Your task to perform on an android device: see creations saved in the google photos Image 0: 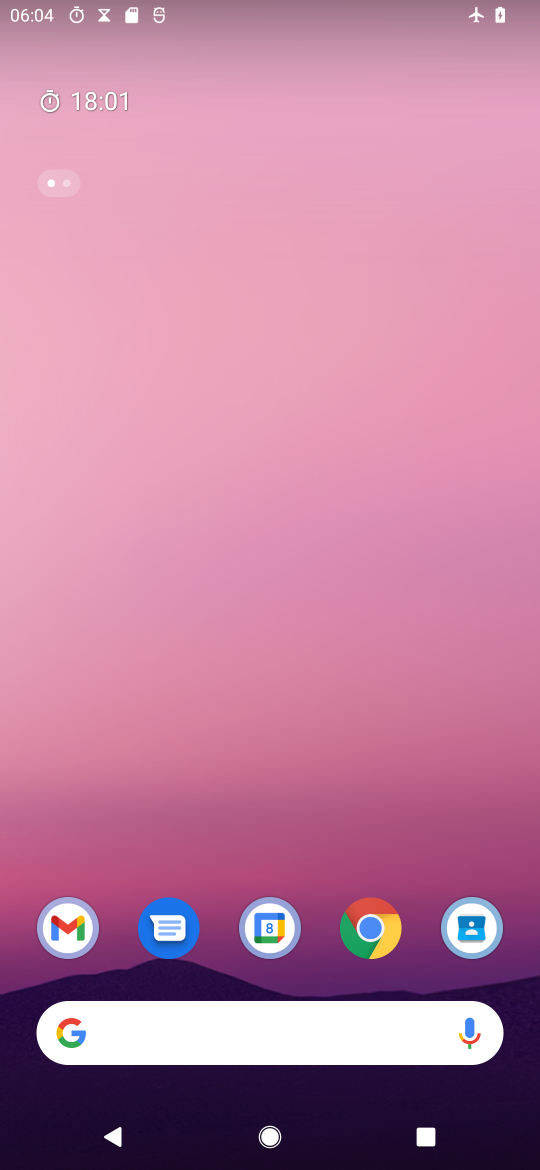
Step 0: drag from (205, 969) to (253, 169)
Your task to perform on an android device: see creations saved in the google photos Image 1: 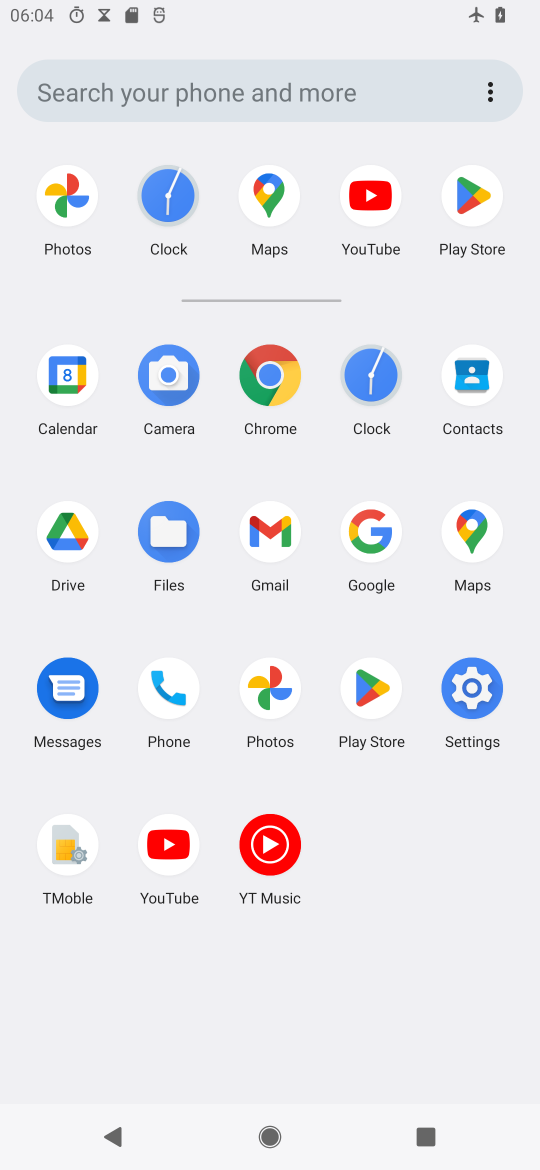
Step 1: click (271, 697)
Your task to perform on an android device: see creations saved in the google photos Image 2: 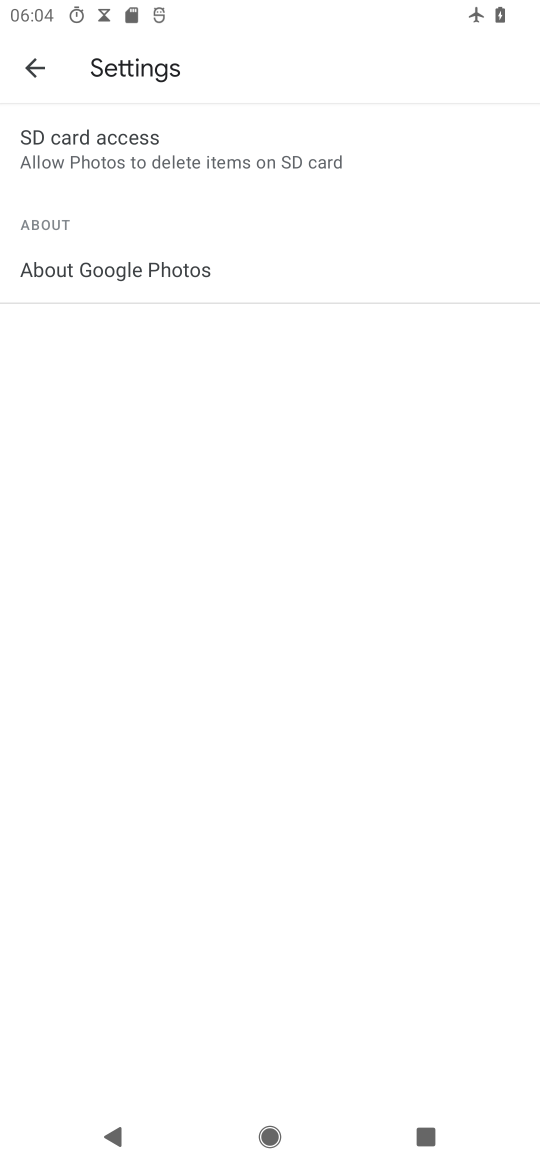
Step 2: click (42, 82)
Your task to perform on an android device: see creations saved in the google photos Image 3: 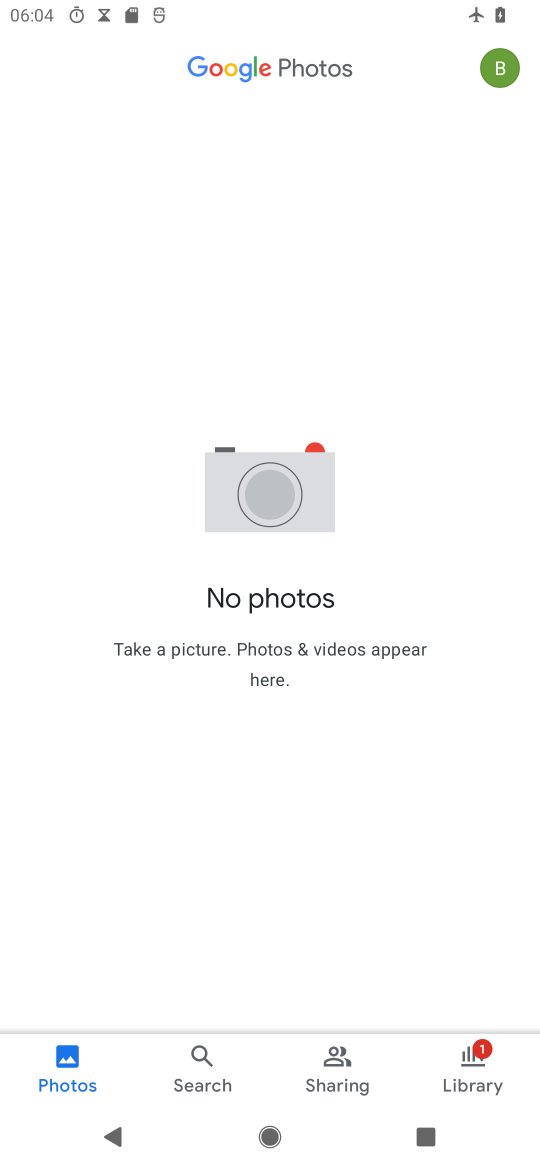
Step 3: click (320, 1056)
Your task to perform on an android device: see creations saved in the google photos Image 4: 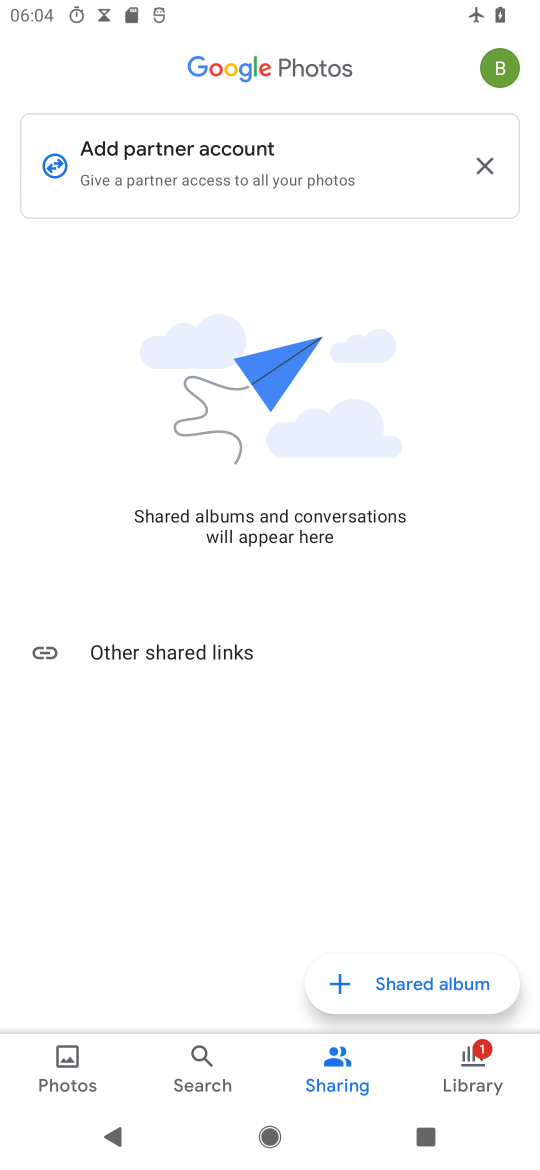
Step 4: click (207, 1096)
Your task to perform on an android device: see creations saved in the google photos Image 5: 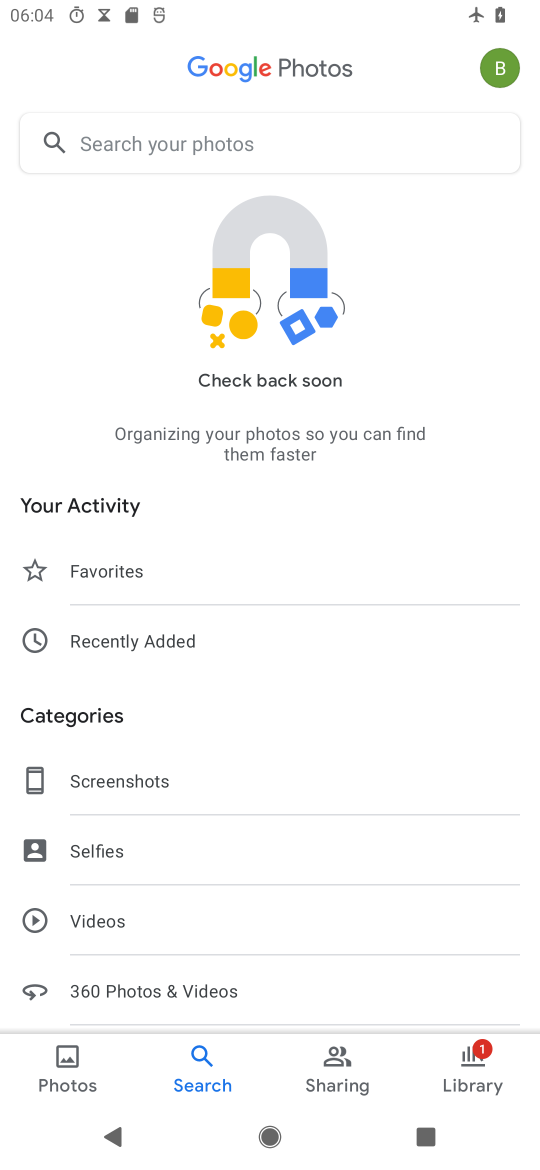
Step 5: drag from (246, 925) to (267, 376)
Your task to perform on an android device: see creations saved in the google photos Image 6: 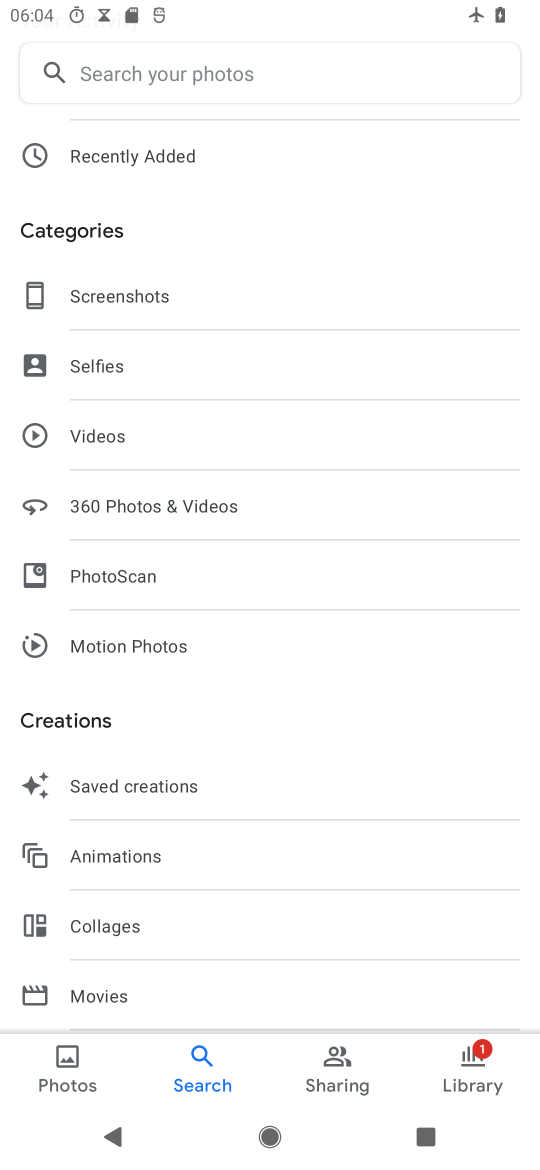
Step 6: click (180, 782)
Your task to perform on an android device: see creations saved in the google photos Image 7: 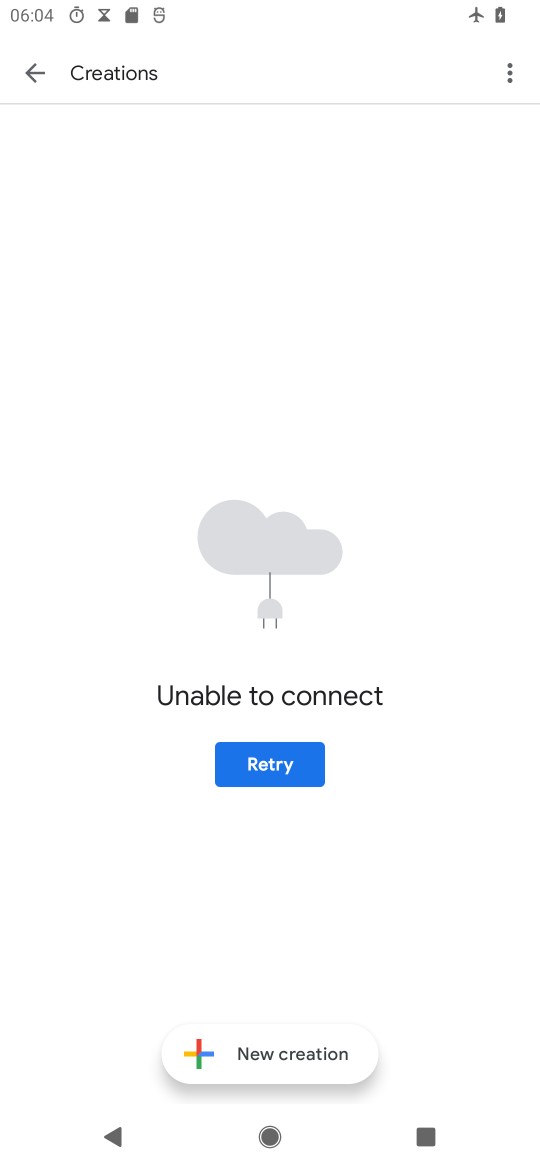
Step 7: click (265, 752)
Your task to perform on an android device: see creations saved in the google photos Image 8: 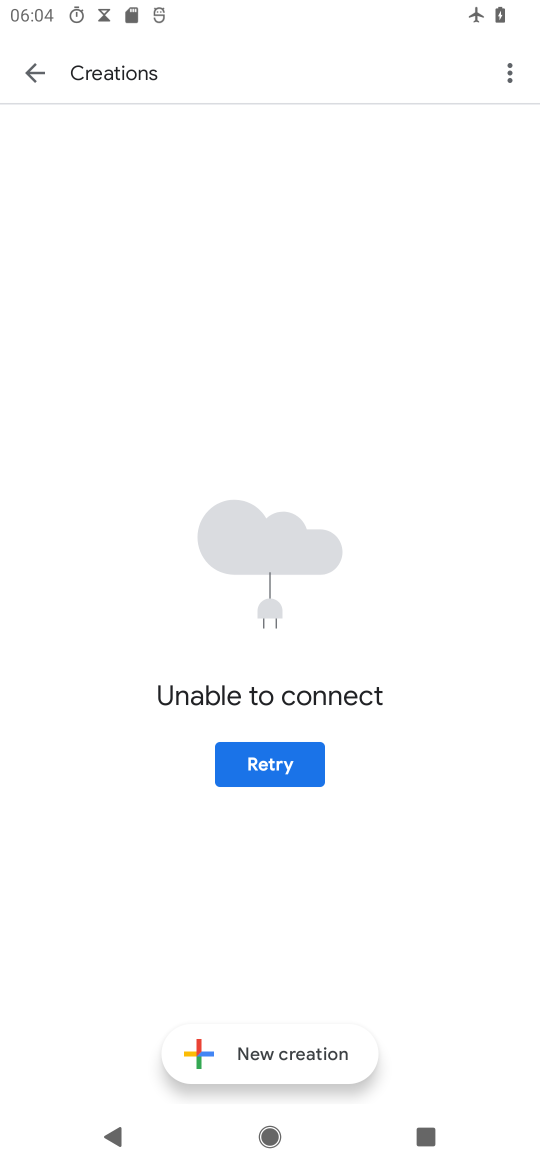
Step 8: task complete